Your task to perform on an android device: Show the shopping cart on bestbuy. Image 0: 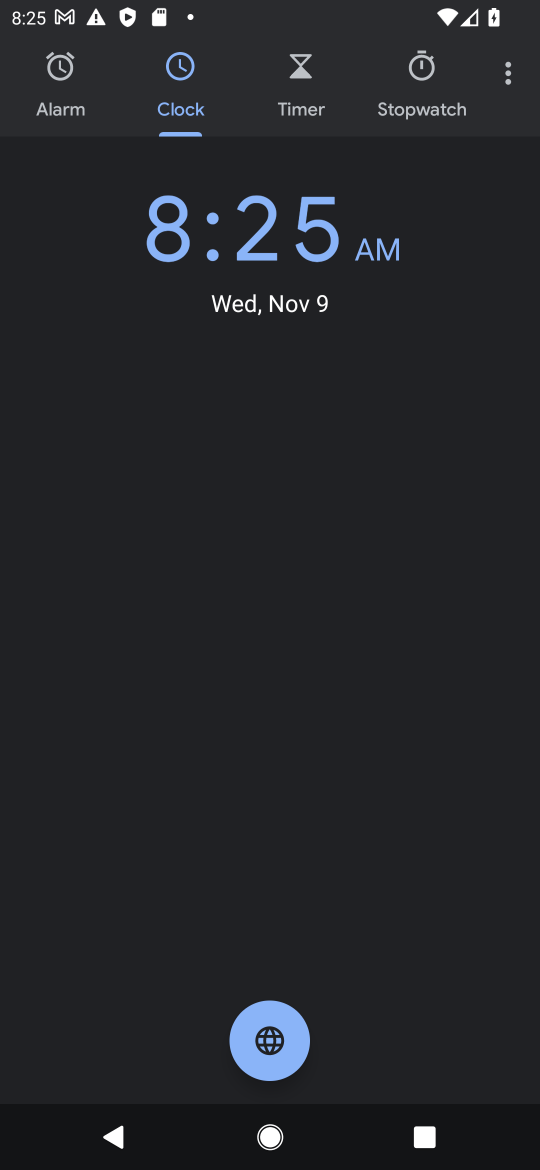
Step 0: press home button
Your task to perform on an android device: Show the shopping cart on bestbuy. Image 1: 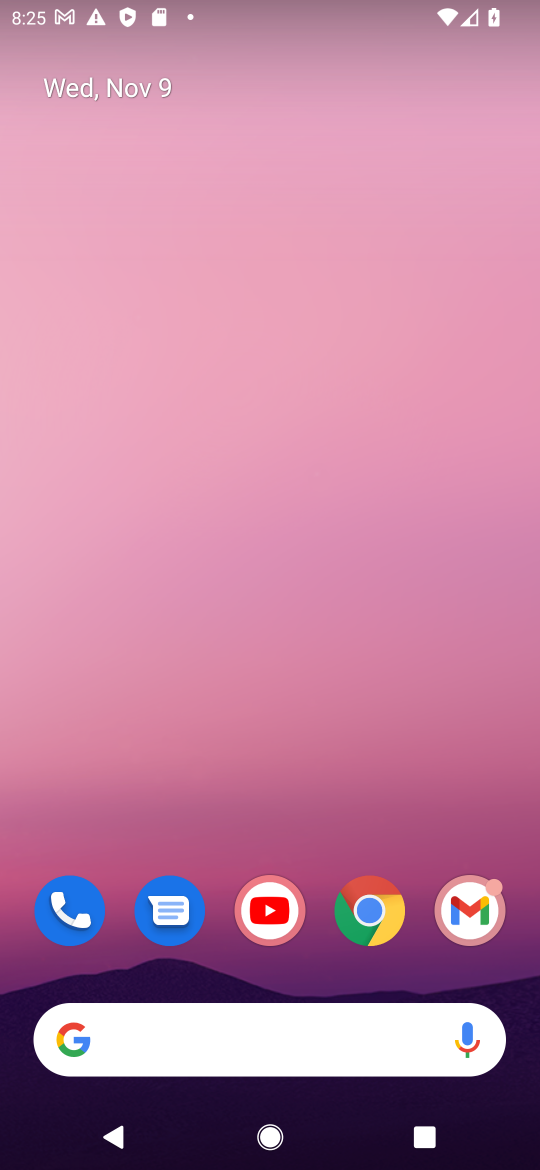
Step 1: click (363, 929)
Your task to perform on an android device: Show the shopping cart on bestbuy. Image 2: 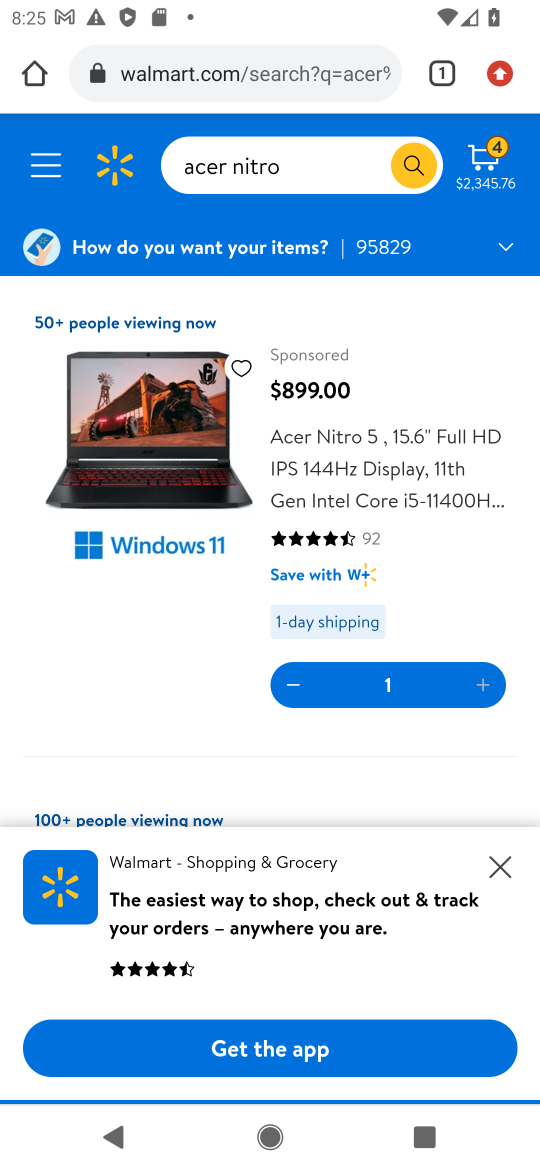
Step 2: click (247, 54)
Your task to perform on an android device: Show the shopping cart on bestbuy. Image 3: 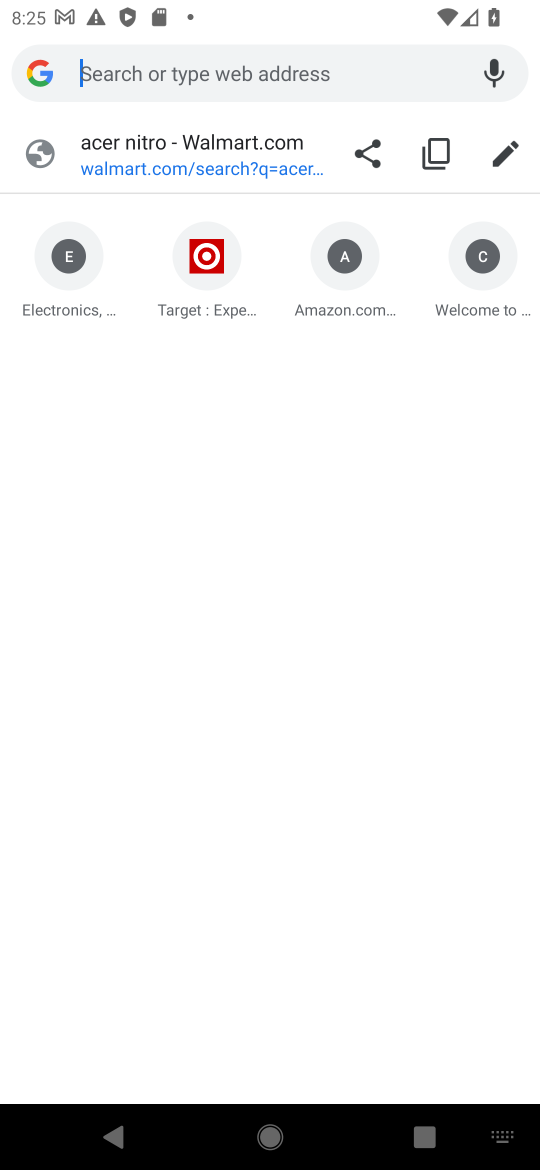
Step 3: type "bestbuy.com"
Your task to perform on an android device: Show the shopping cart on bestbuy. Image 4: 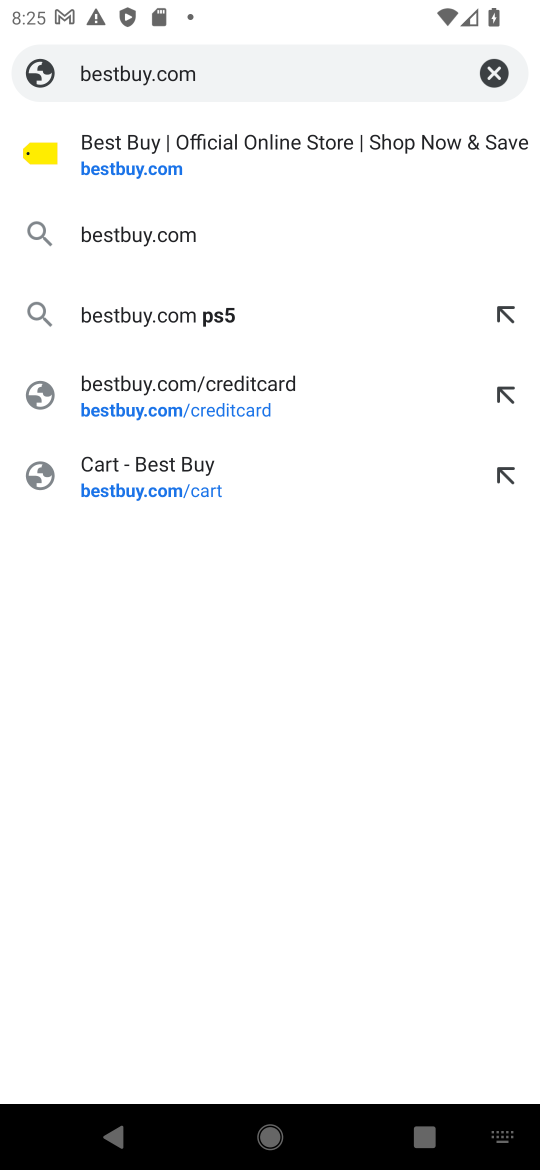
Step 4: click (139, 170)
Your task to perform on an android device: Show the shopping cart on bestbuy. Image 5: 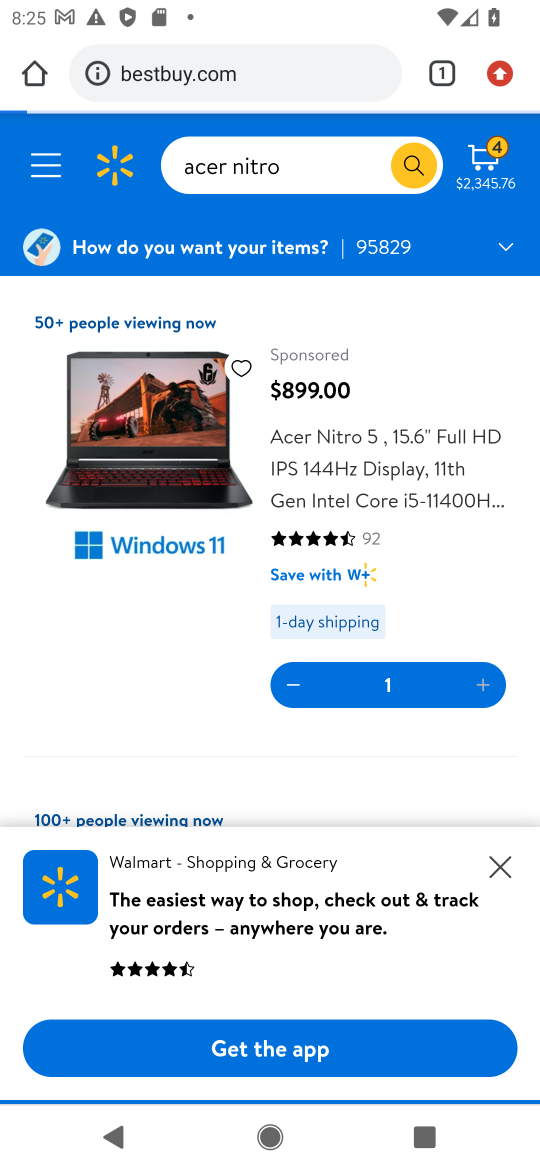
Step 5: click (500, 172)
Your task to perform on an android device: Show the shopping cart on bestbuy. Image 6: 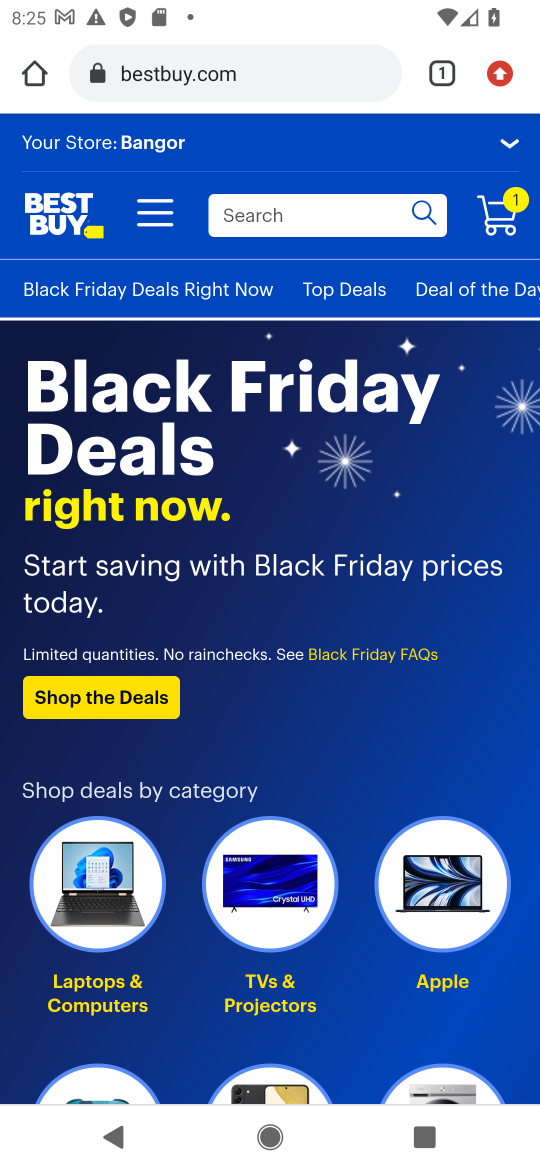
Step 6: click (501, 219)
Your task to perform on an android device: Show the shopping cart on bestbuy. Image 7: 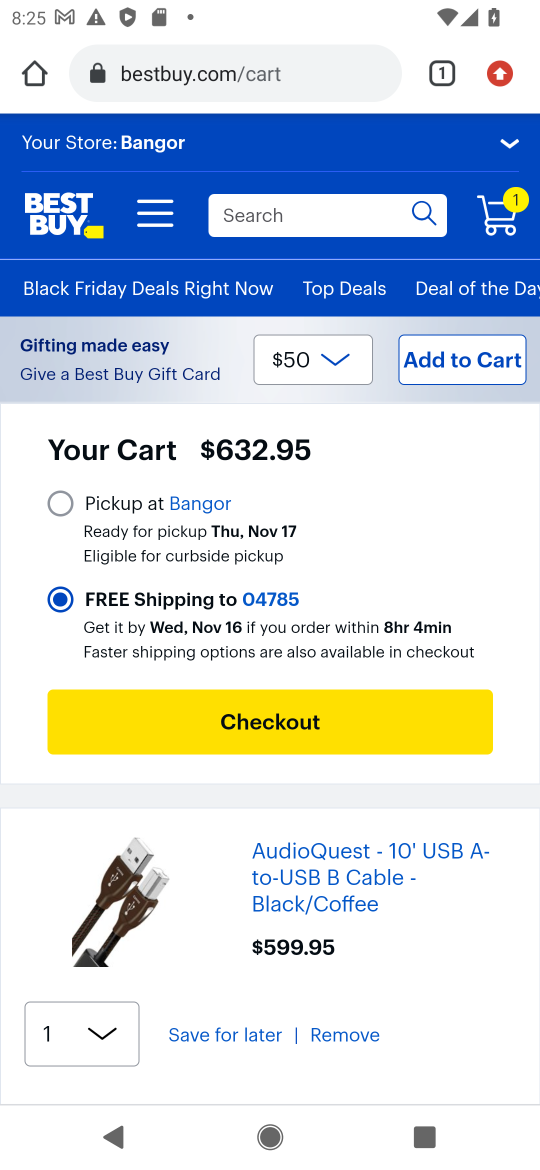
Step 7: task complete